Your task to perform on an android device: check battery use Image 0: 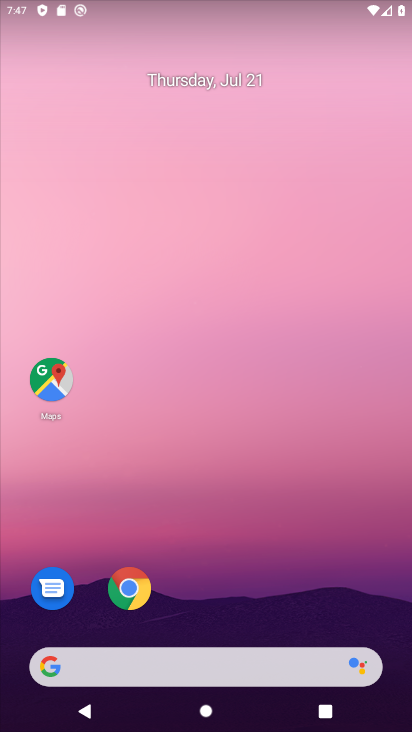
Step 0: click (217, 102)
Your task to perform on an android device: check battery use Image 1: 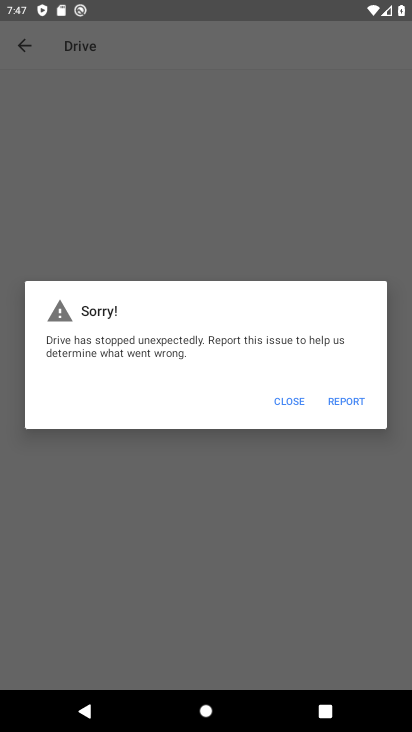
Step 1: press home button
Your task to perform on an android device: check battery use Image 2: 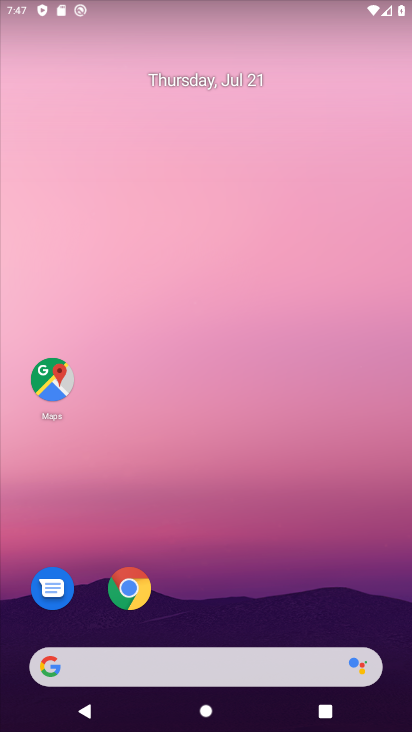
Step 2: drag from (285, 536) to (233, 0)
Your task to perform on an android device: check battery use Image 3: 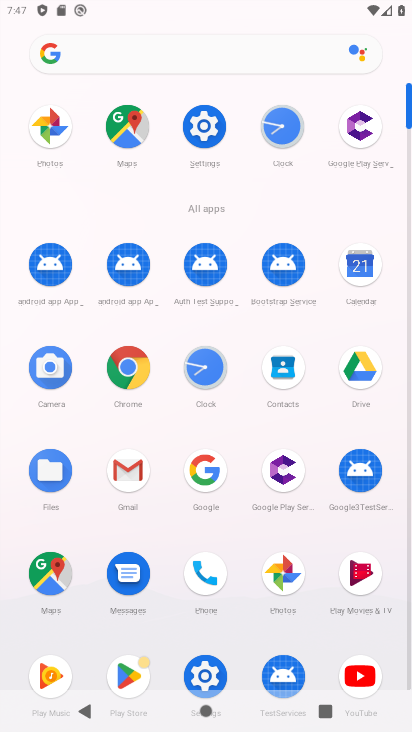
Step 3: click (198, 123)
Your task to perform on an android device: check battery use Image 4: 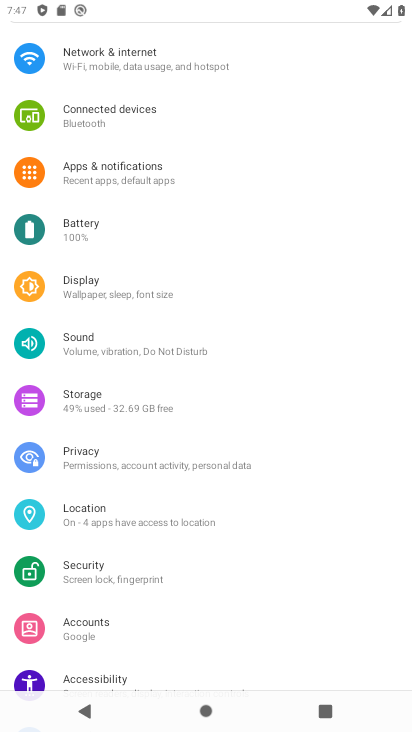
Step 4: click (76, 223)
Your task to perform on an android device: check battery use Image 5: 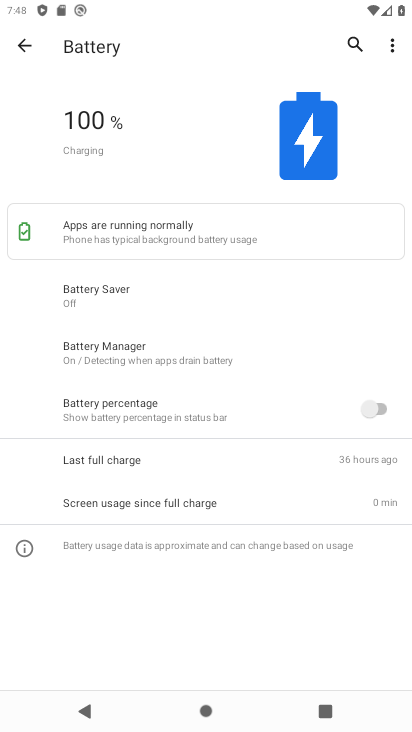
Step 5: task complete